Your task to perform on an android device: open chrome and create a bookmark for the current page Image 0: 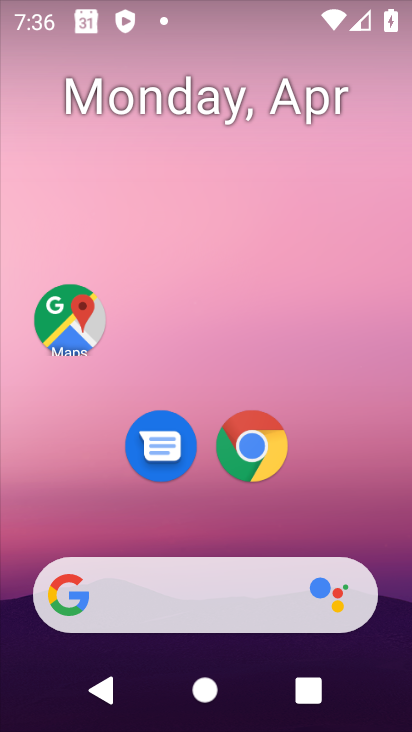
Step 0: drag from (390, 603) to (318, 39)
Your task to perform on an android device: open chrome and create a bookmark for the current page Image 1: 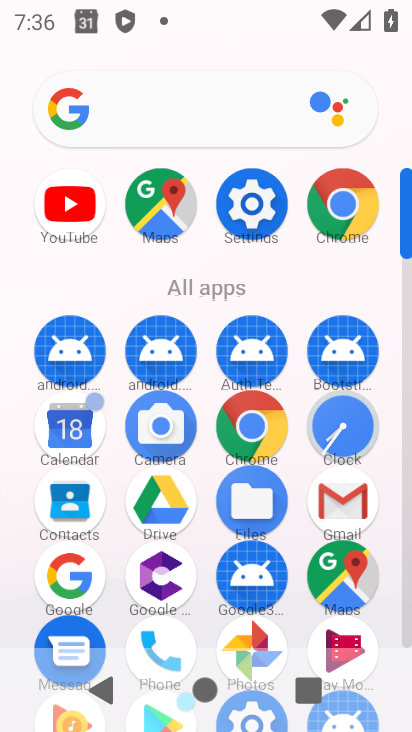
Step 1: drag from (17, 499) to (9, 173)
Your task to perform on an android device: open chrome and create a bookmark for the current page Image 2: 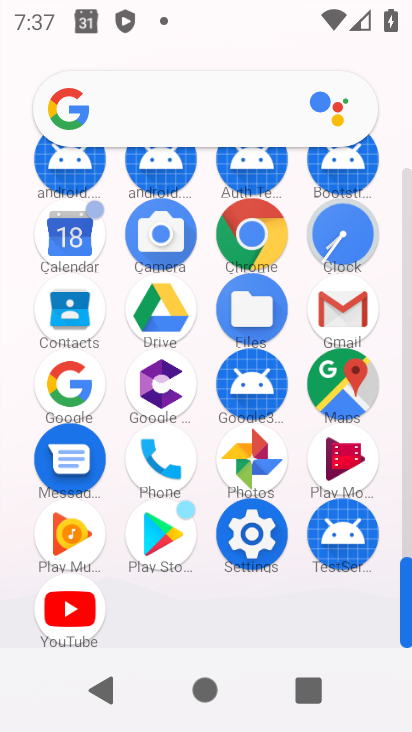
Step 2: click (251, 231)
Your task to perform on an android device: open chrome and create a bookmark for the current page Image 3: 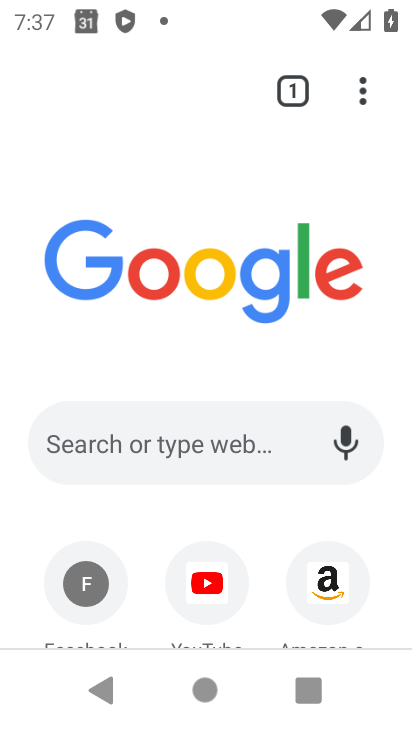
Step 3: drag from (362, 94) to (154, 101)
Your task to perform on an android device: open chrome and create a bookmark for the current page Image 4: 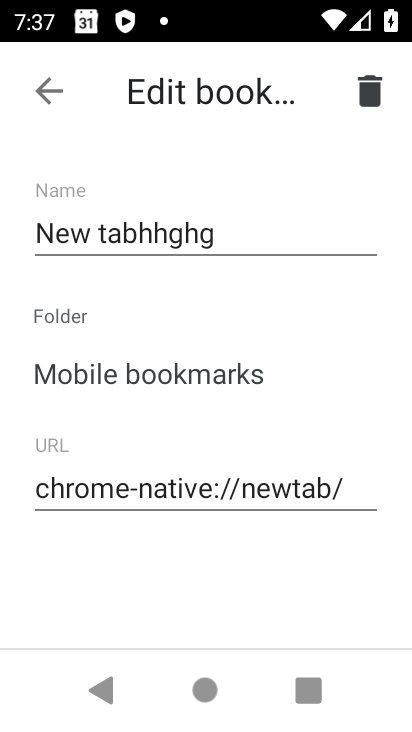
Step 4: click (48, 88)
Your task to perform on an android device: open chrome and create a bookmark for the current page Image 5: 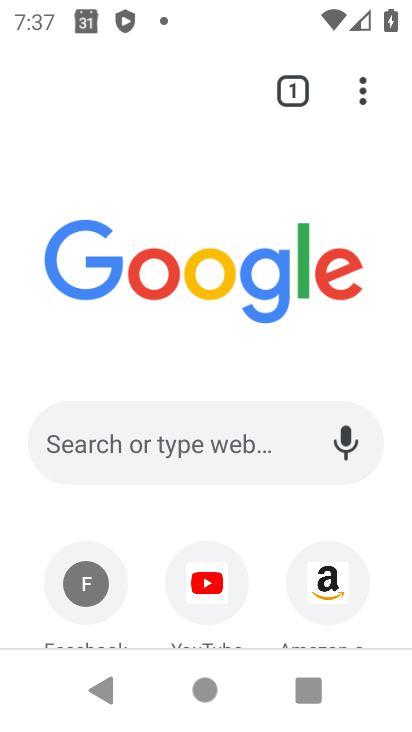
Step 5: task complete